Your task to perform on an android device: Search for sushi restaurants on Maps Image 0: 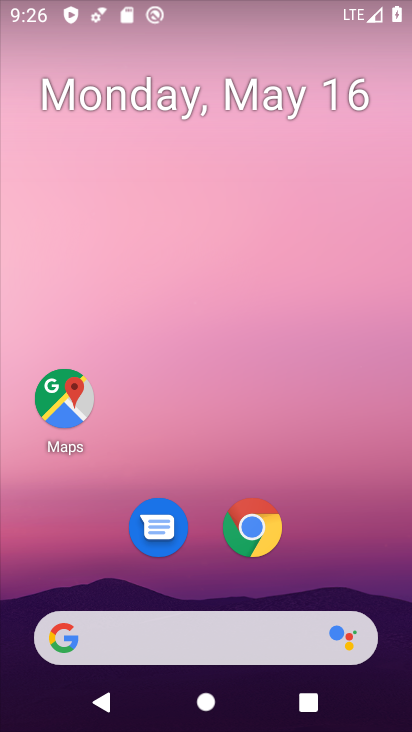
Step 0: click (66, 396)
Your task to perform on an android device: Search for sushi restaurants on Maps Image 1: 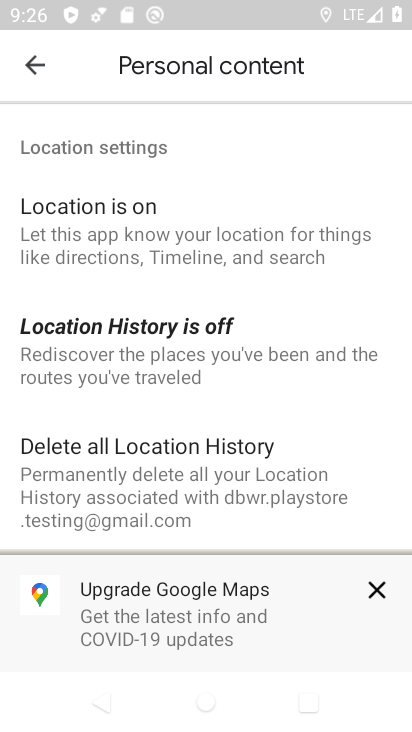
Step 1: click (33, 78)
Your task to perform on an android device: Search for sushi restaurants on Maps Image 2: 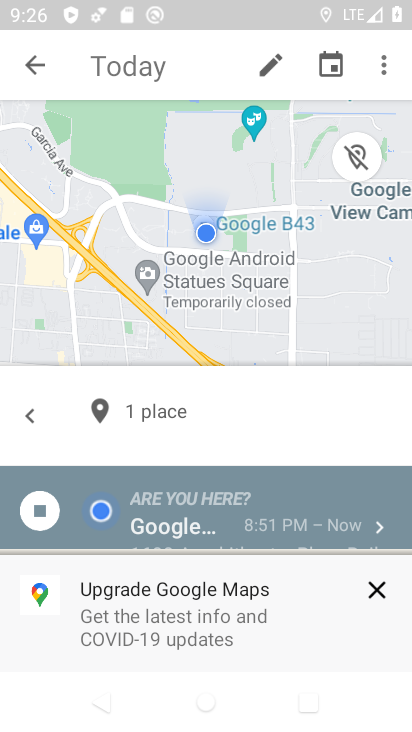
Step 2: click (33, 78)
Your task to perform on an android device: Search for sushi restaurants on Maps Image 3: 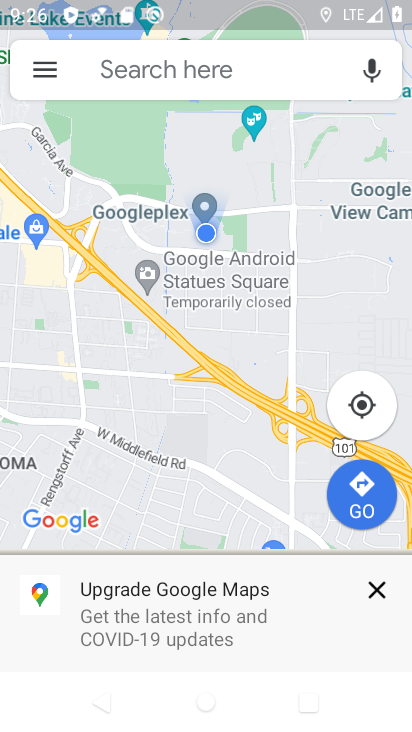
Step 3: click (103, 67)
Your task to perform on an android device: Search for sushi restaurants on Maps Image 4: 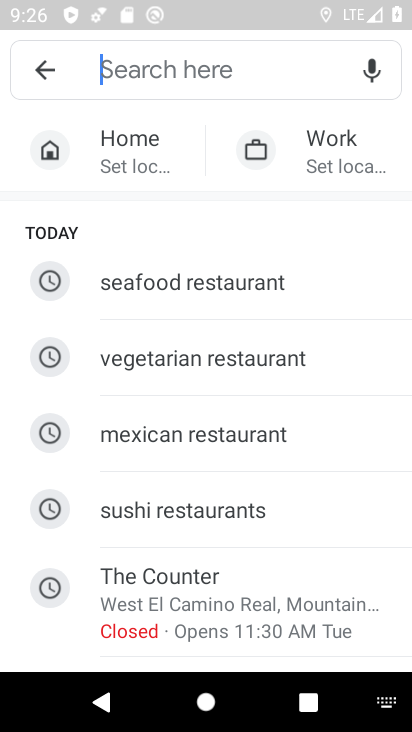
Step 4: type "sushi restaurant"
Your task to perform on an android device: Search for sushi restaurants on Maps Image 5: 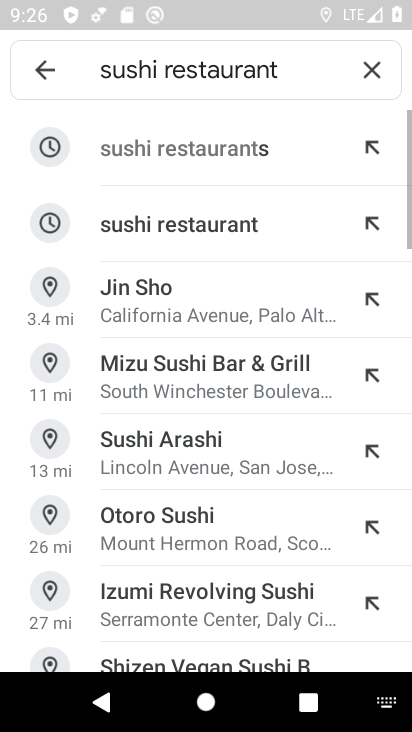
Step 5: click (133, 161)
Your task to perform on an android device: Search for sushi restaurants on Maps Image 6: 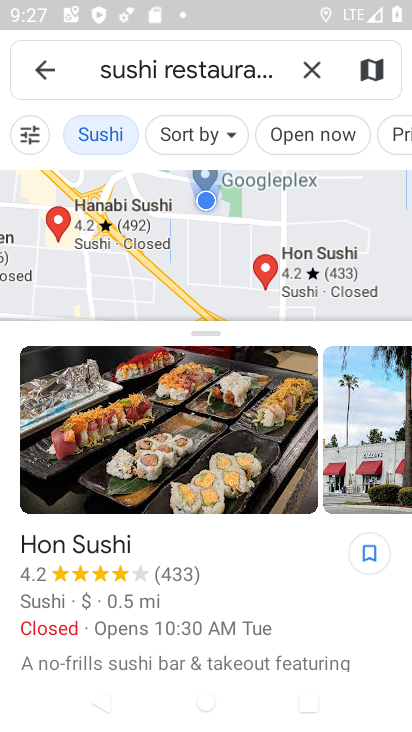
Step 6: task complete